Your task to perform on an android device: Go to Yahoo.com Image 0: 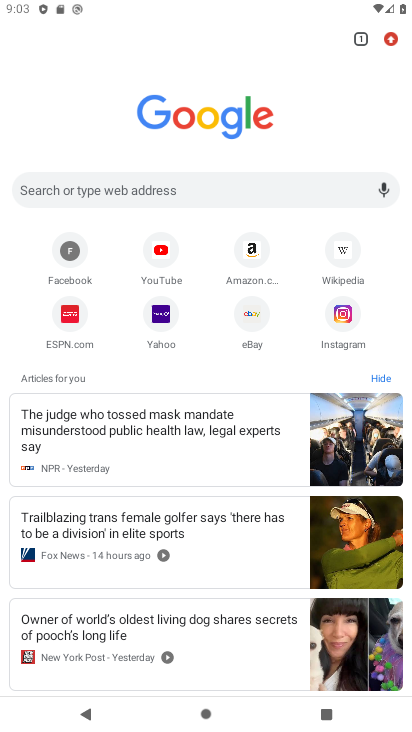
Step 0: click (160, 252)
Your task to perform on an android device: Go to Yahoo.com Image 1: 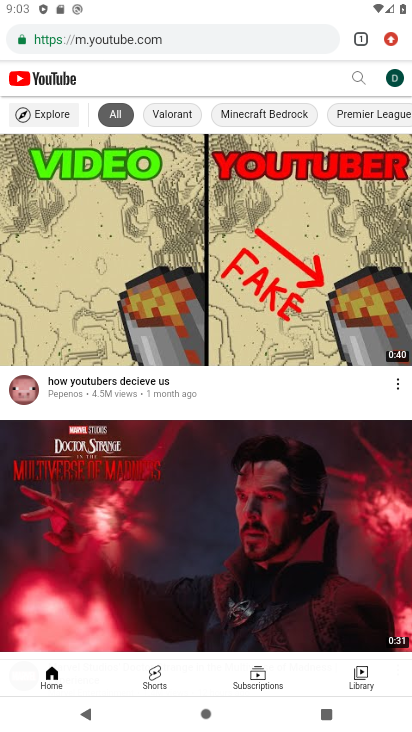
Step 1: press back button
Your task to perform on an android device: Go to Yahoo.com Image 2: 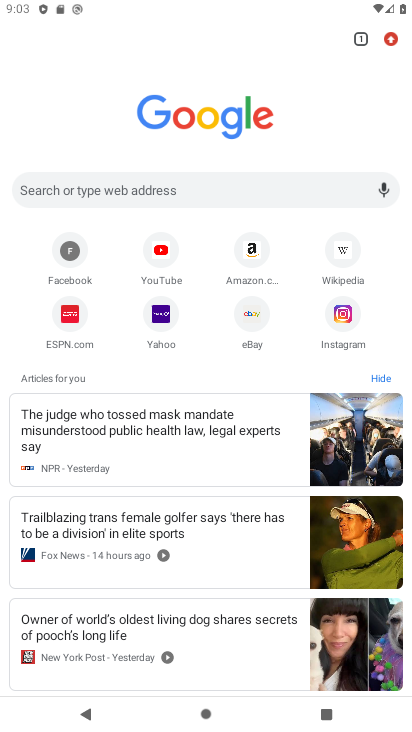
Step 2: click (151, 322)
Your task to perform on an android device: Go to Yahoo.com Image 3: 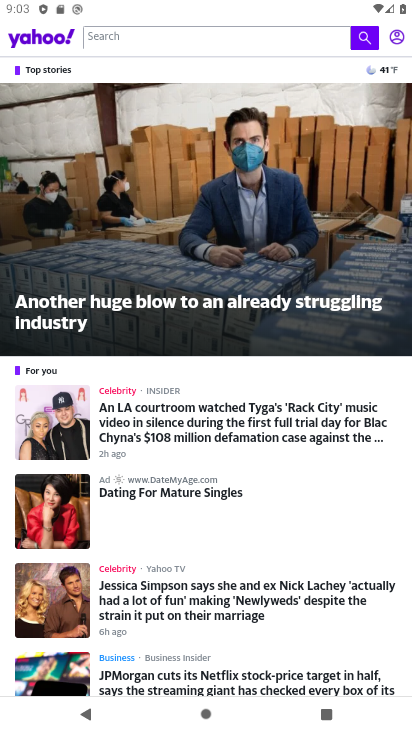
Step 3: task complete